Your task to perform on an android device: change notification settings in the gmail app Image 0: 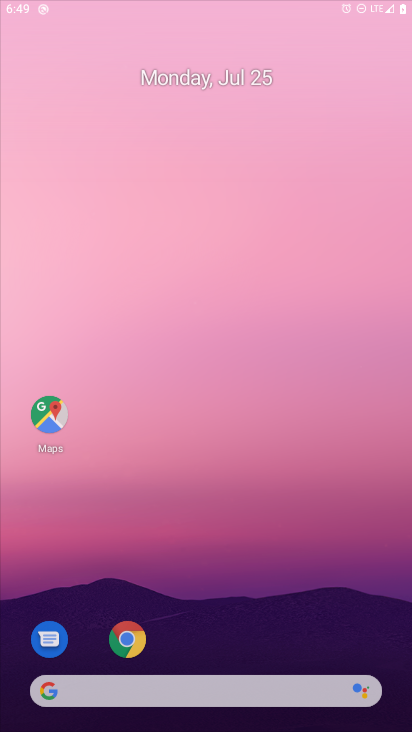
Step 0: press home button
Your task to perform on an android device: change notification settings in the gmail app Image 1: 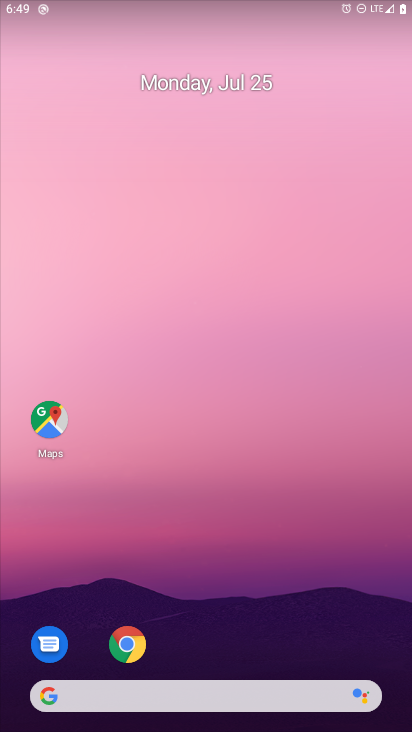
Step 1: drag from (246, 590) to (310, 113)
Your task to perform on an android device: change notification settings in the gmail app Image 2: 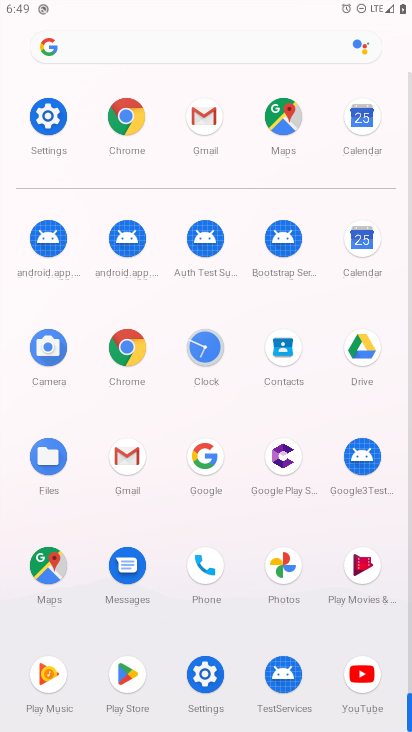
Step 2: click (203, 122)
Your task to perform on an android device: change notification settings in the gmail app Image 3: 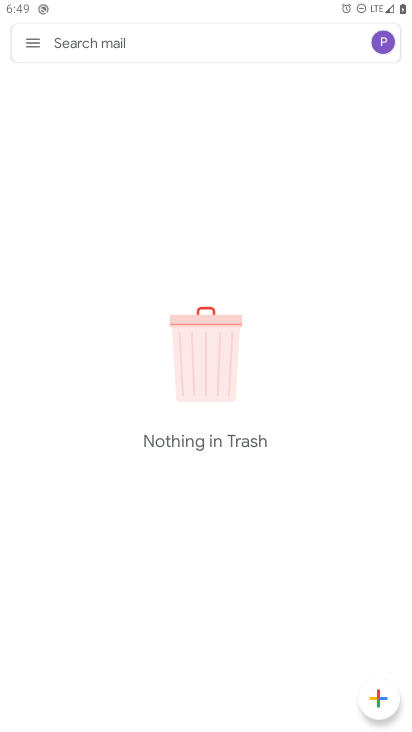
Step 3: click (29, 35)
Your task to perform on an android device: change notification settings in the gmail app Image 4: 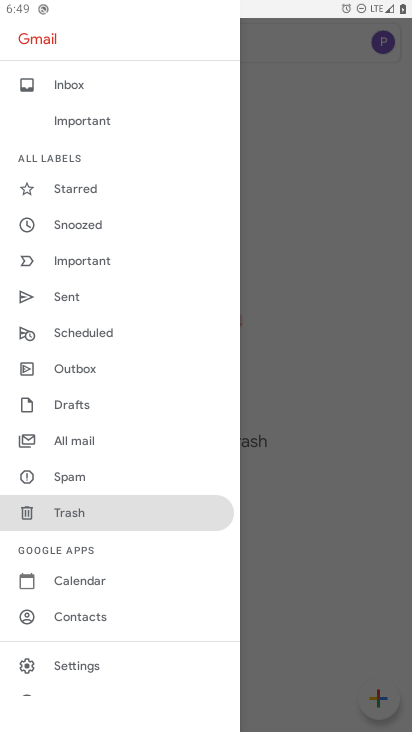
Step 4: click (85, 661)
Your task to perform on an android device: change notification settings in the gmail app Image 5: 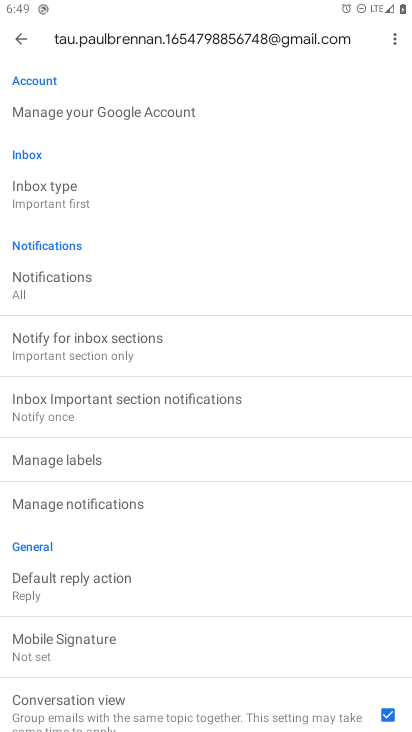
Step 5: click (59, 509)
Your task to perform on an android device: change notification settings in the gmail app Image 6: 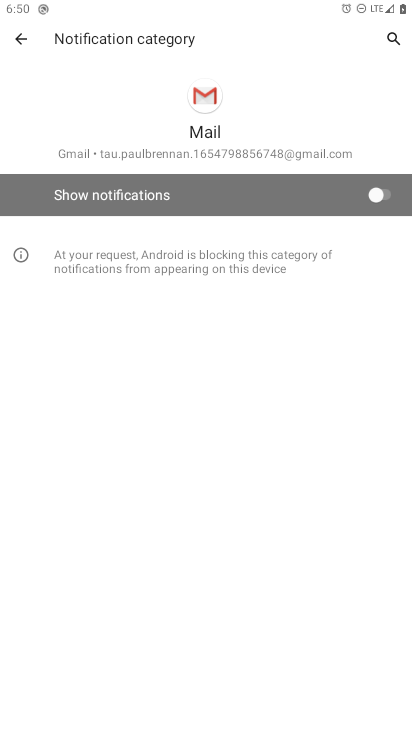
Step 6: click (376, 195)
Your task to perform on an android device: change notification settings in the gmail app Image 7: 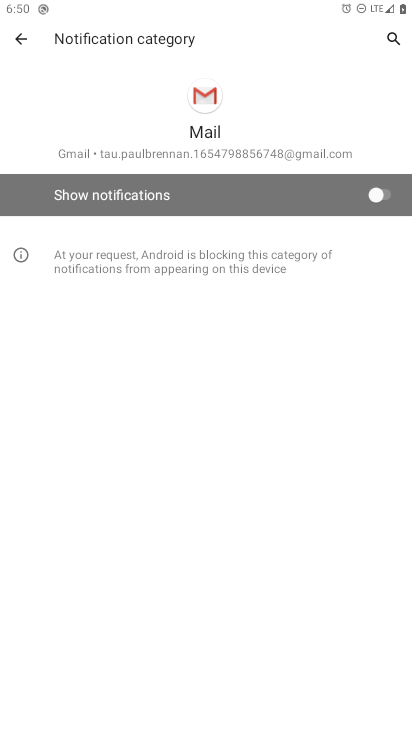
Step 7: click (376, 194)
Your task to perform on an android device: change notification settings in the gmail app Image 8: 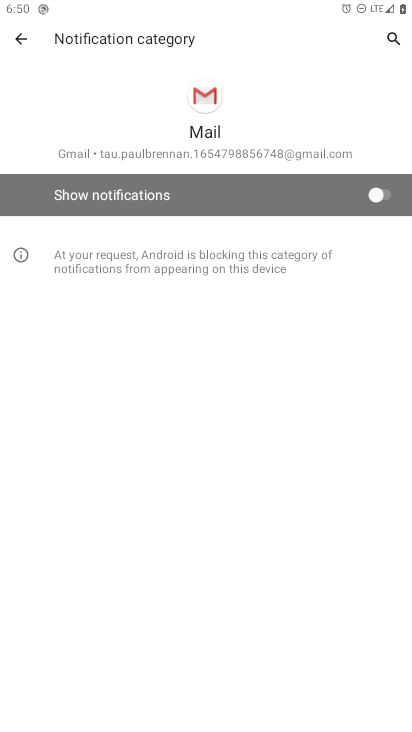
Step 8: click (376, 195)
Your task to perform on an android device: change notification settings in the gmail app Image 9: 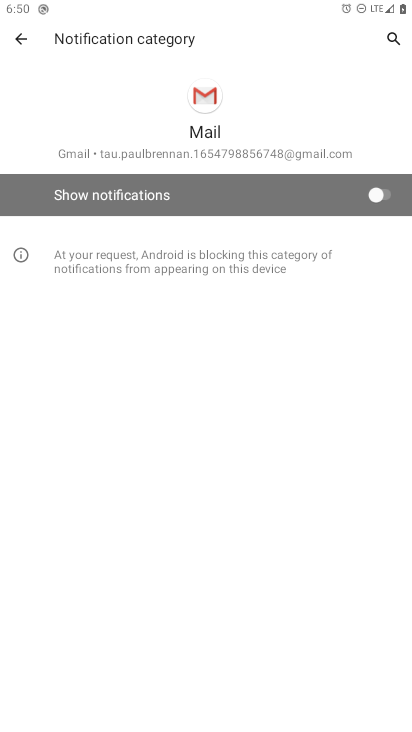
Step 9: click (376, 194)
Your task to perform on an android device: change notification settings in the gmail app Image 10: 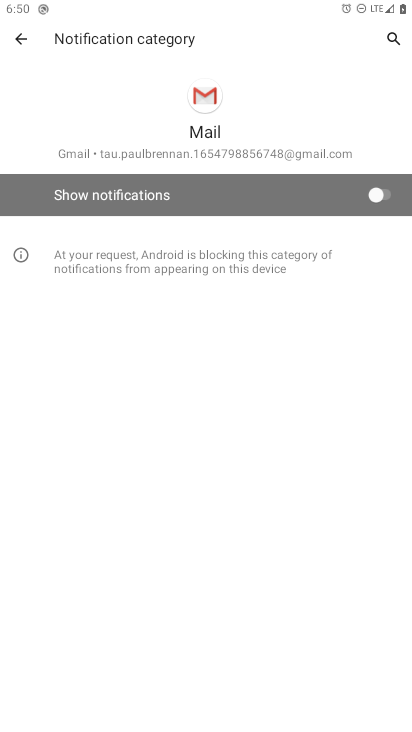
Step 10: click (375, 198)
Your task to perform on an android device: change notification settings in the gmail app Image 11: 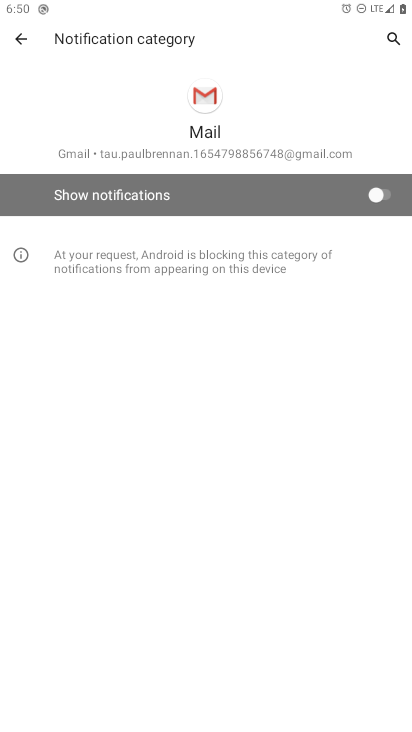
Step 11: click (372, 191)
Your task to perform on an android device: change notification settings in the gmail app Image 12: 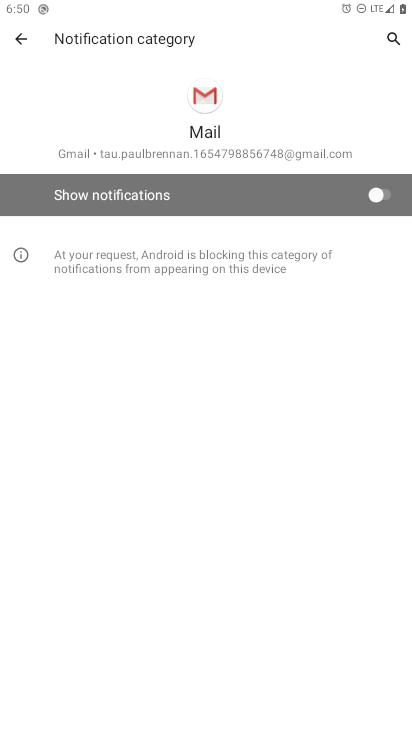
Step 12: click (375, 194)
Your task to perform on an android device: change notification settings in the gmail app Image 13: 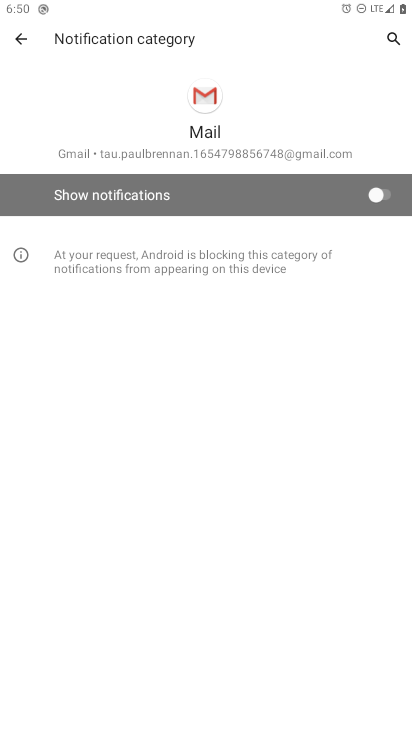
Step 13: click (385, 184)
Your task to perform on an android device: change notification settings in the gmail app Image 14: 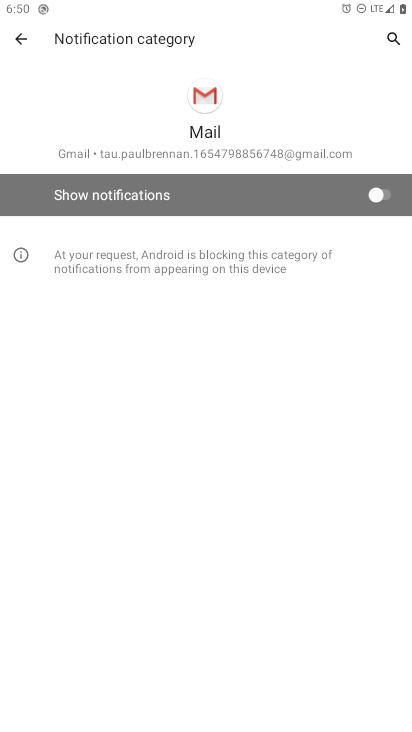
Step 14: click (380, 193)
Your task to perform on an android device: change notification settings in the gmail app Image 15: 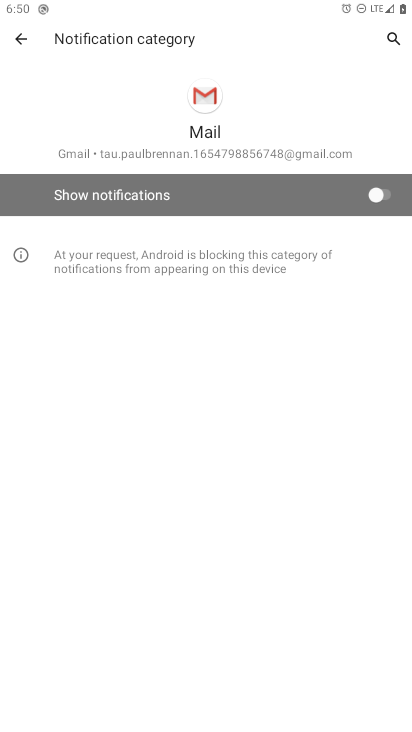
Step 15: click (380, 193)
Your task to perform on an android device: change notification settings in the gmail app Image 16: 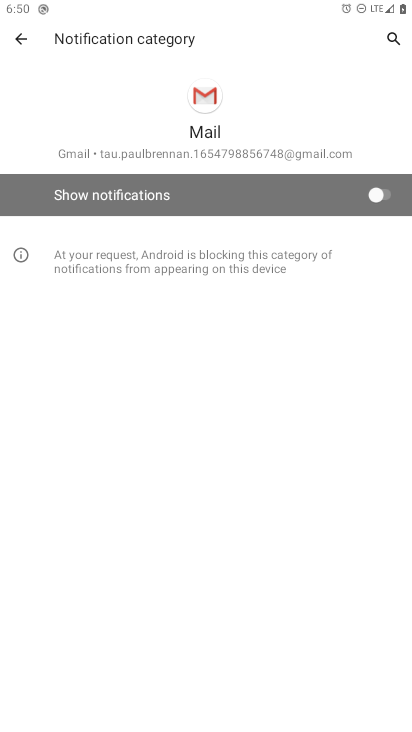
Step 16: click (380, 193)
Your task to perform on an android device: change notification settings in the gmail app Image 17: 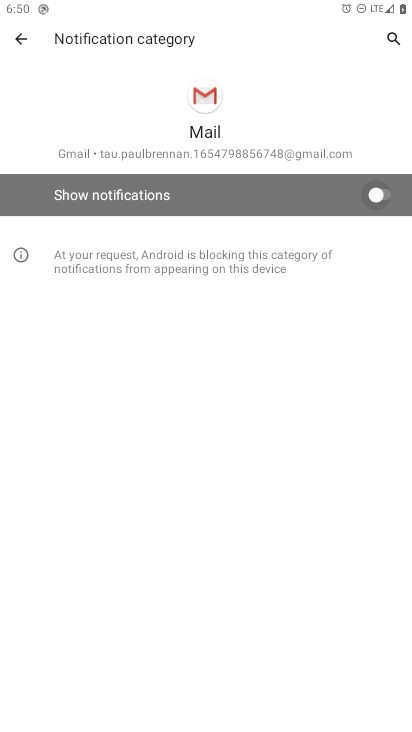
Step 17: click (380, 193)
Your task to perform on an android device: change notification settings in the gmail app Image 18: 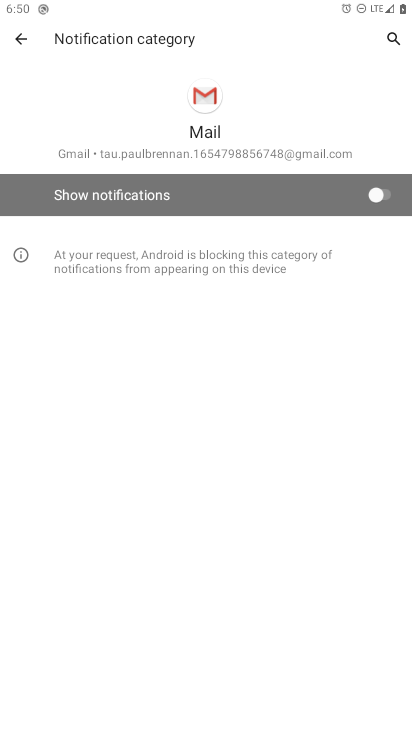
Step 18: click (380, 193)
Your task to perform on an android device: change notification settings in the gmail app Image 19: 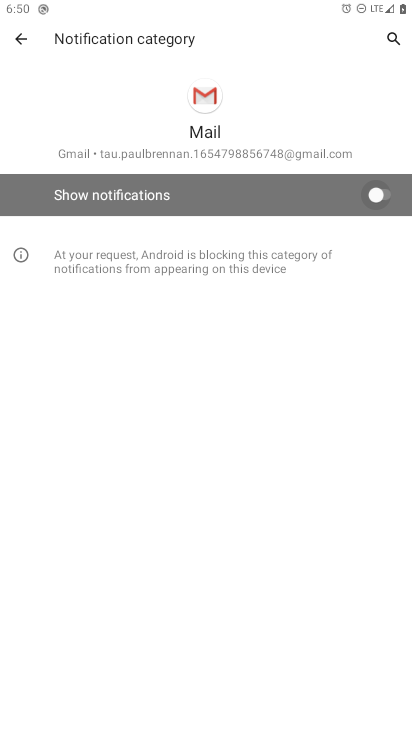
Step 19: click (380, 193)
Your task to perform on an android device: change notification settings in the gmail app Image 20: 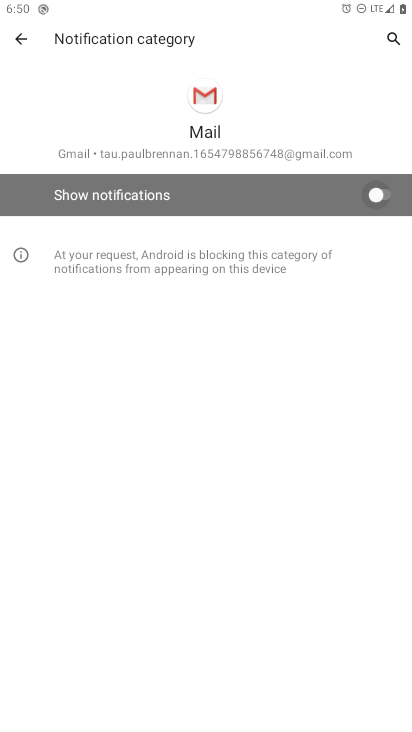
Step 20: click (380, 193)
Your task to perform on an android device: change notification settings in the gmail app Image 21: 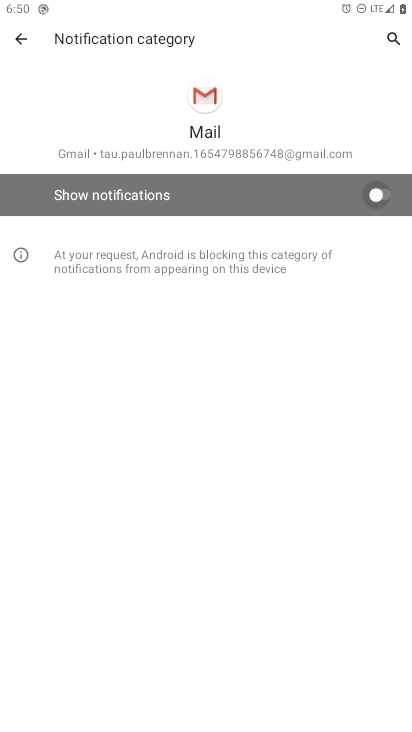
Step 21: click (380, 193)
Your task to perform on an android device: change notification settings in the gmail app Image 22: 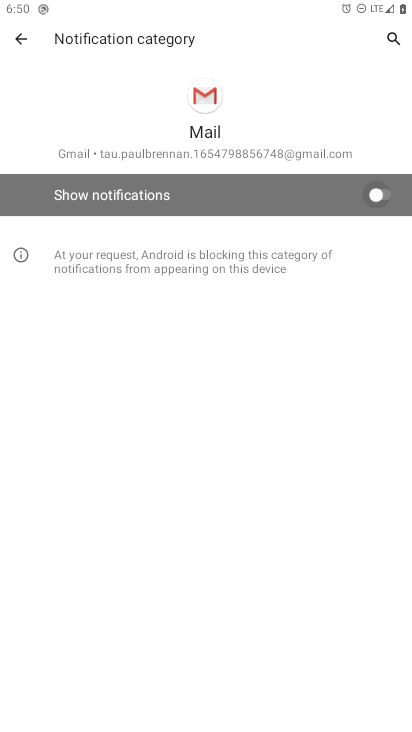
Step 22: click (380, 193)
Your task to perform on an android device: change notification settings in the gmail app Image 23: 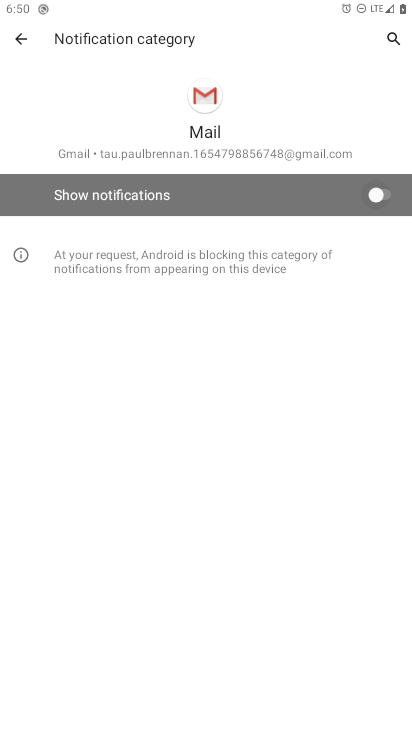
Step 23: click (380, 193)
Your task to perform on an android device: change notification settings in the gmail app Image 24: 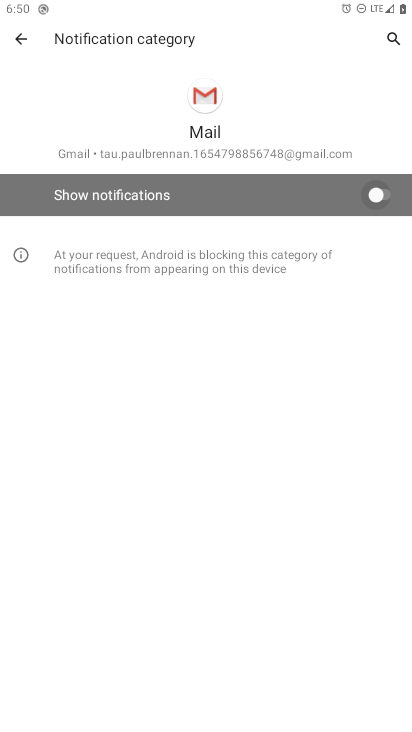
Step 24: click (386, 185)
Your task to perform on an android device: change notification settings in the gmail app Image 25: 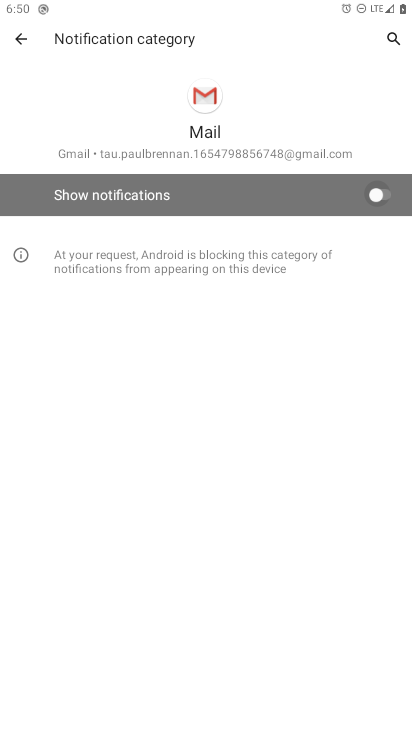
Step 25: click (391, 150)
Your task to perform on an android device: change notification settings in the gmail app Image 26: 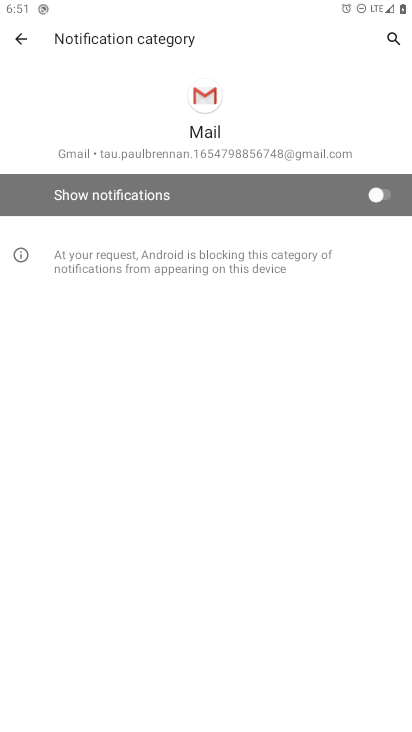
Step 26: click (379, 198)
Your task to perform on an android device: change notification settings in the gmail app Image 27: 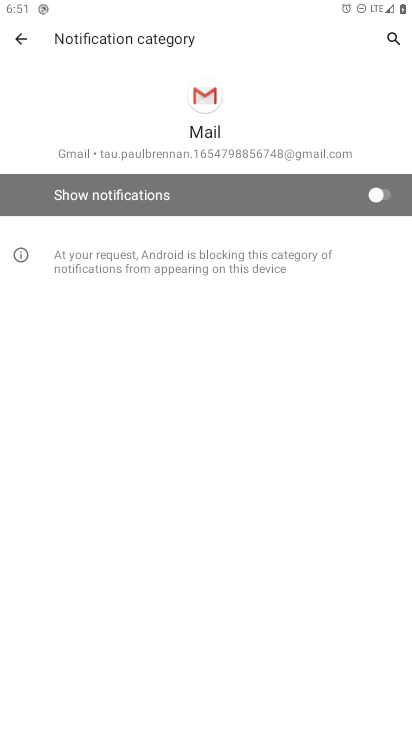
Step 27: click (377, 190)
Your task to perform on an android device: change notification settings in the gmail app Image 28: 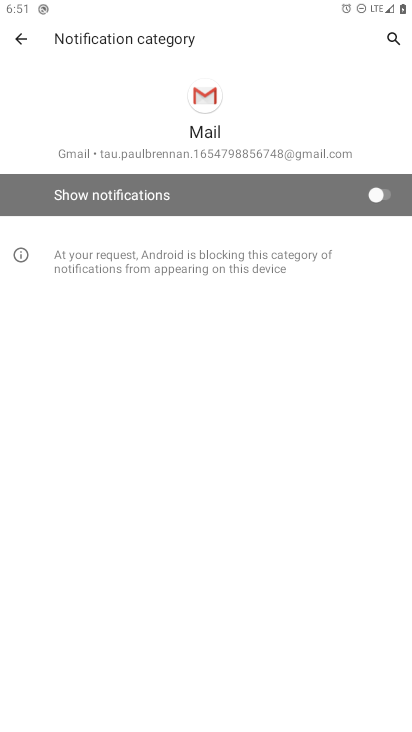
Step 28: click (379, 193)
Your task to perform on an android device: change notification settings in the gmail app Image 29: 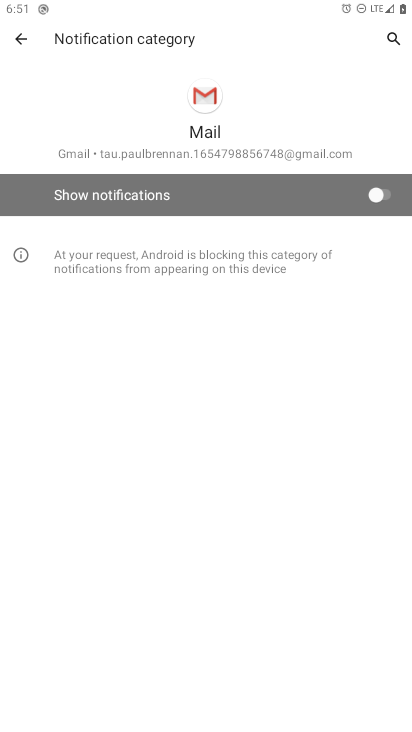
Step 29: task complete